Your task to perform on an android device: delete a single message in the gmail app Image 0: 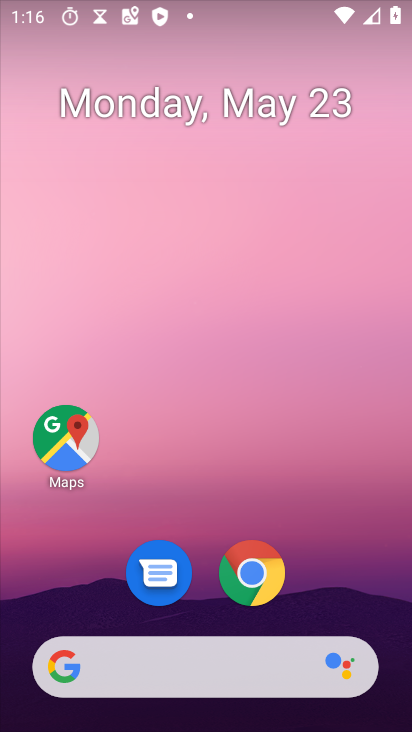
Step 0: press home button
Your task to perform on an android device: delete a single message in the gmail app Image 1: 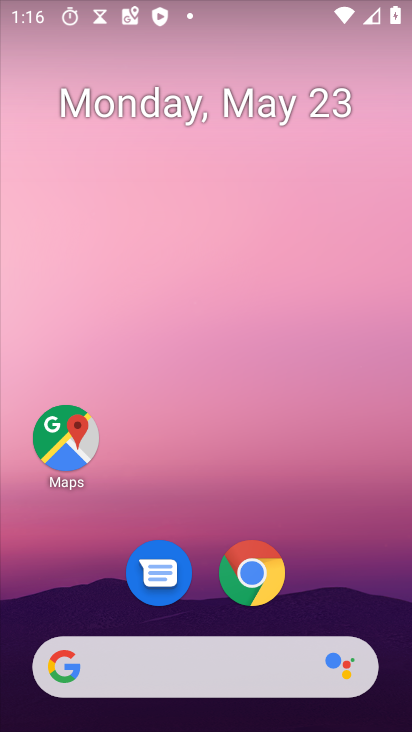
Step 1: drag from (139, 653) to (271, 174)
Your task to perform on an android device: delete a single message in the gmail app Image 2: 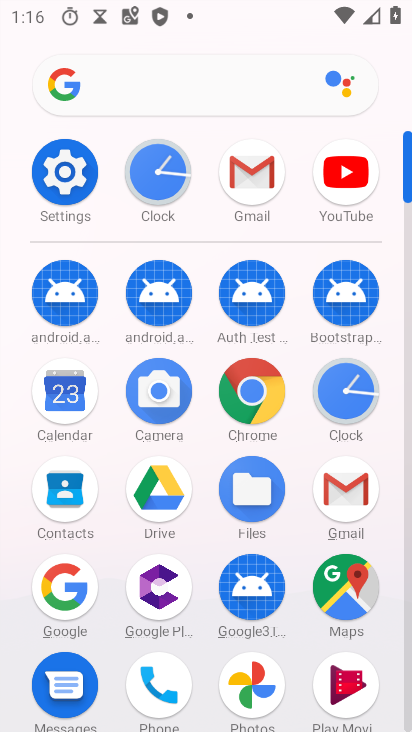
Step 2: click (263, 182)
Your task to perform on an android device: delete a single message in the gmail app Image 3: 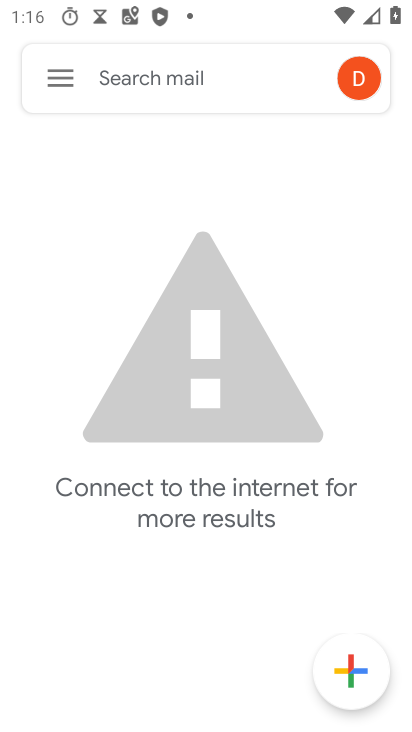
Step 3: drag from (161, 132) to (235, 506)
Your task to perform on an android device: delete a single message in the gmail app Image 4: 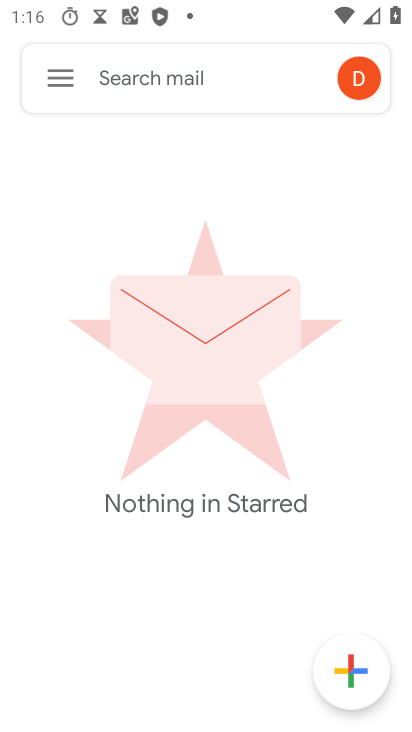
Step 4: click (69, 79)
Your task to perform on an android device: delete a single message in the gmail app Image 5: 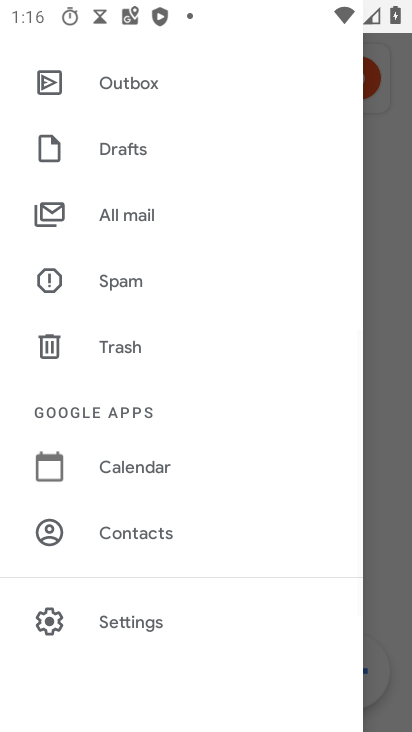
Step 5: click (138, 218)
Your task to perform on an android device: delete a single message in the gmail app Image 6: 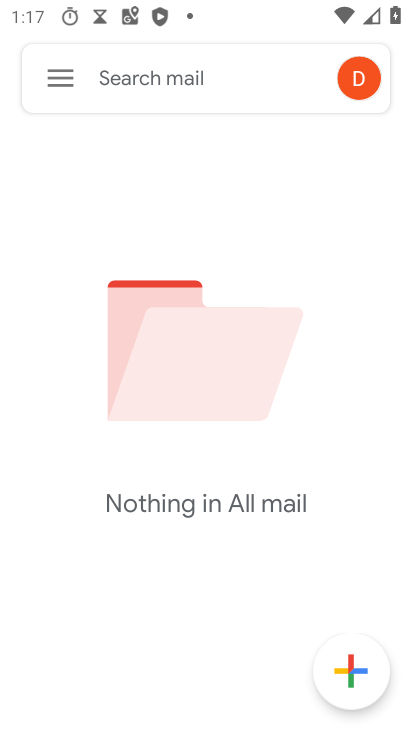
Step 6: task complete